Your task to perform on an android device: toggle translation in the chrome app Image 0: 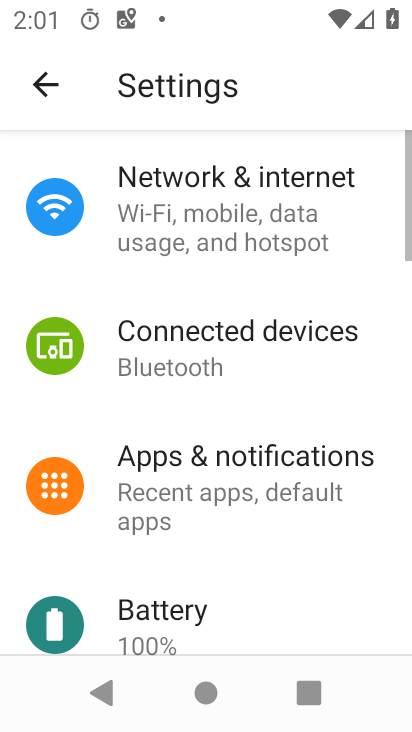
Step 0: press home button
Your task to perform on an android device: toggle translation in the chrome app Image 1: 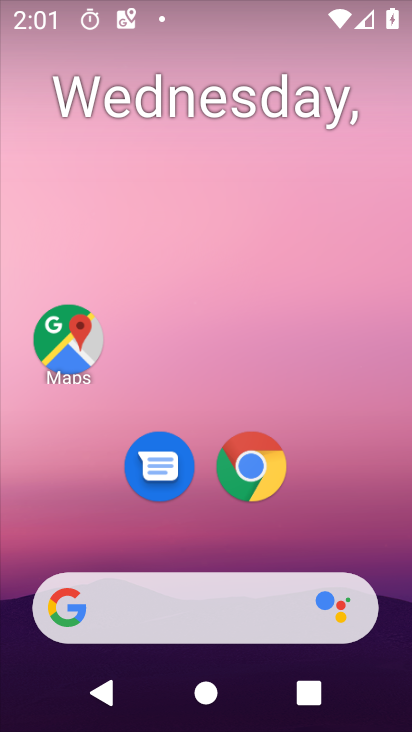
Step 1: click (246, 472)
Your task to perform on an android device: toggle translation in the chrome app Image 2: 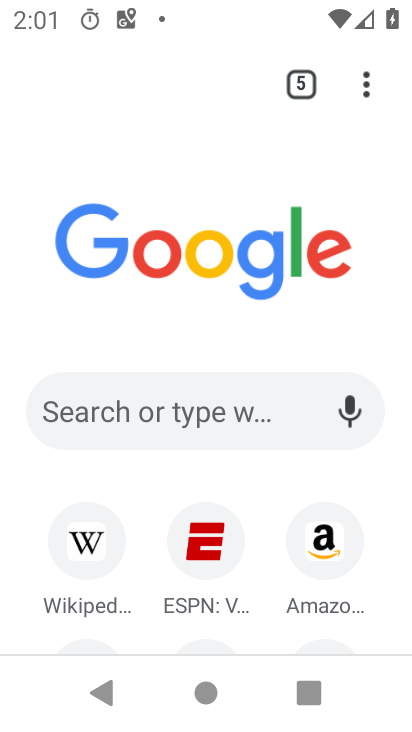
Step 2: click (368, 85)
Your task to perform on an android device: toggle translation in the chrome app Image 3: 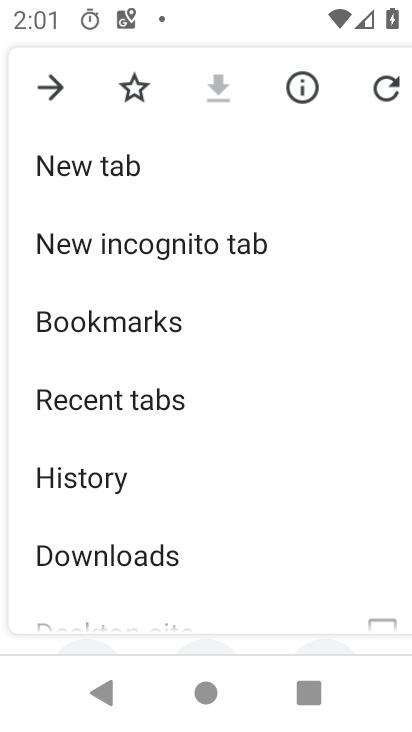
Step 3: drag from (232, 527) to (180, 168)
Your task to perform on an android device: toggle translation in the chrome app Image 4: 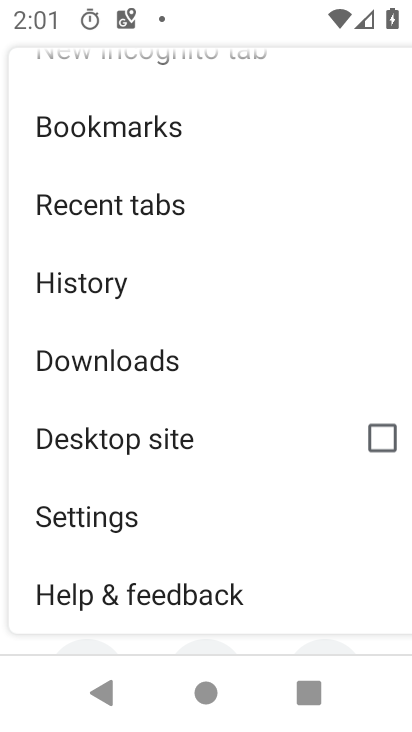
Step 4: click (154, 501)
Your task to perform on an android device: toggle translation in the chrome app Image 5: 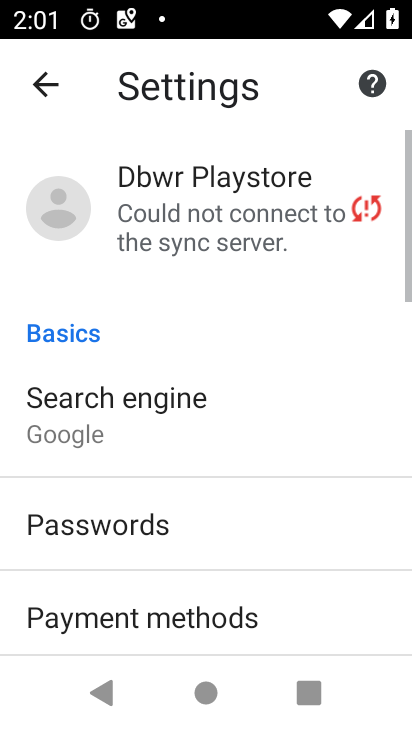
Step 5: drag from (162, 507) to (157, 185)
Your task to perform on an android device: toggle translation in the chrome app Image 6: 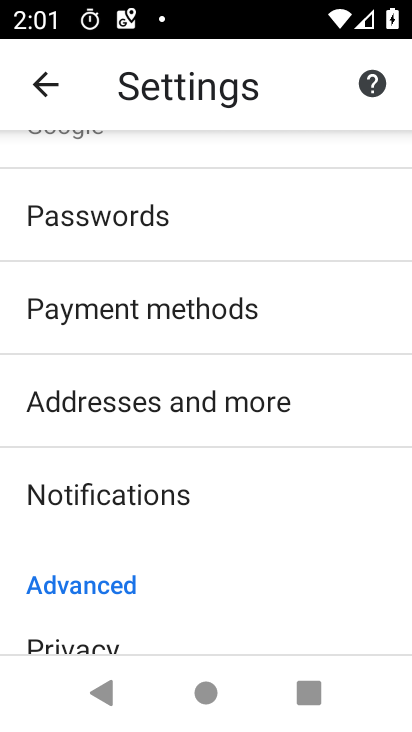
Step 6: drag from (176, 519) to (176, 153)
Your task to perform on an android device: toggle translation in the chrome app Image 7: 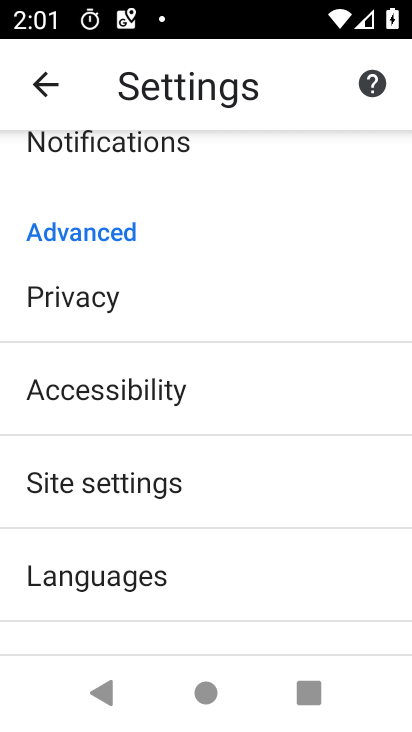
Step 7: drag from (167, 442) to (176, 143)
Your task to perform on an android device: toggle translation in the chrome app Image 8: 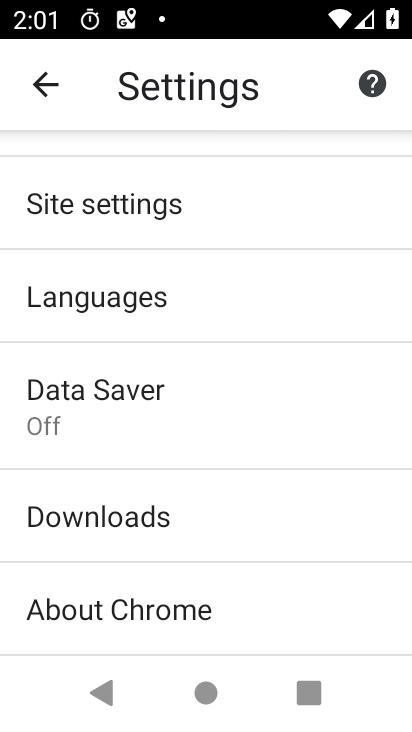
Step 8: click (138, 301)
Your task to perform on an android device: toggle translation in the chrome app Image 9: 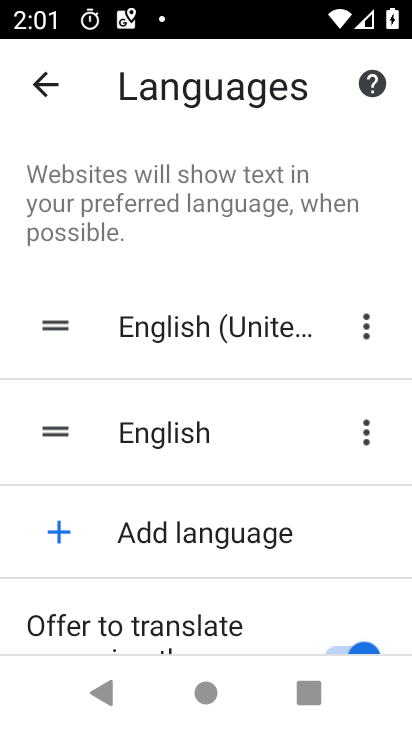
Step 9: drag from (189, 544) to (192, 243)
Your task to perform on an android device: toggle translation in the chrome app Image 10: 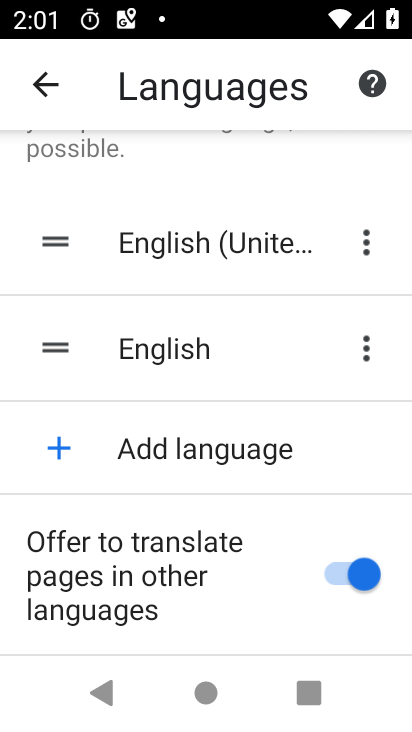
Step 10: click (372, 570)
Your task to perform on an android device: toggle translation in the chrome app Image 11: 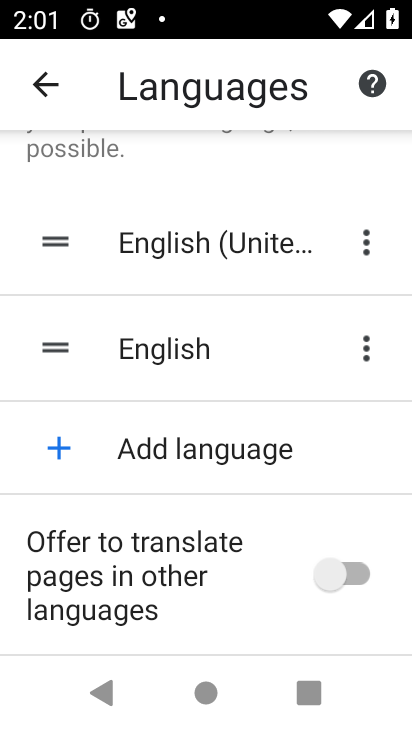
Step 11: task complete